Your task to perform on an android device: What's the weather like in Los Angeles? Image 0: 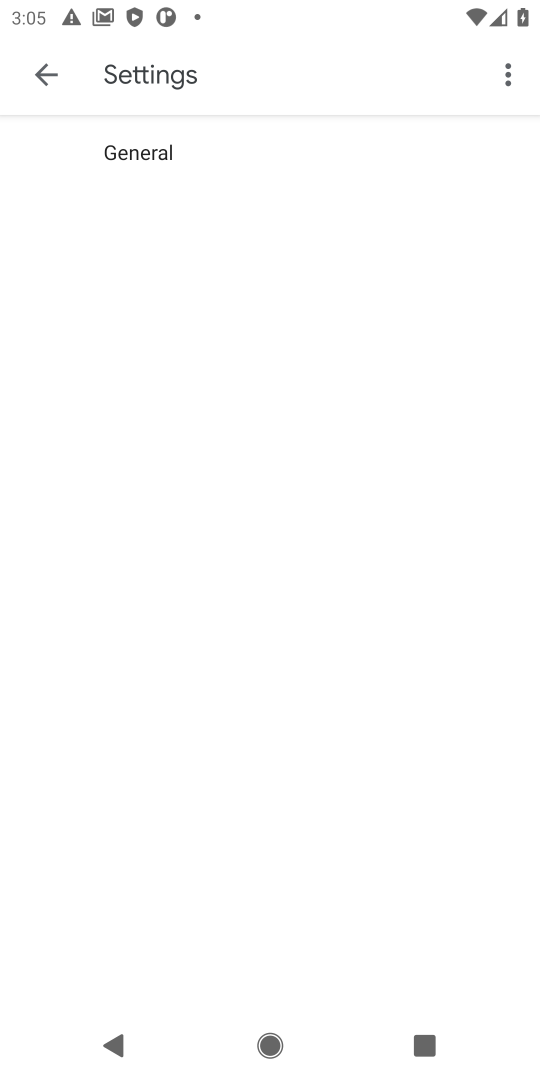
Step 0: press home button
Your task to perform on an android device: What's the weather like in Los Angeles? Image 1: 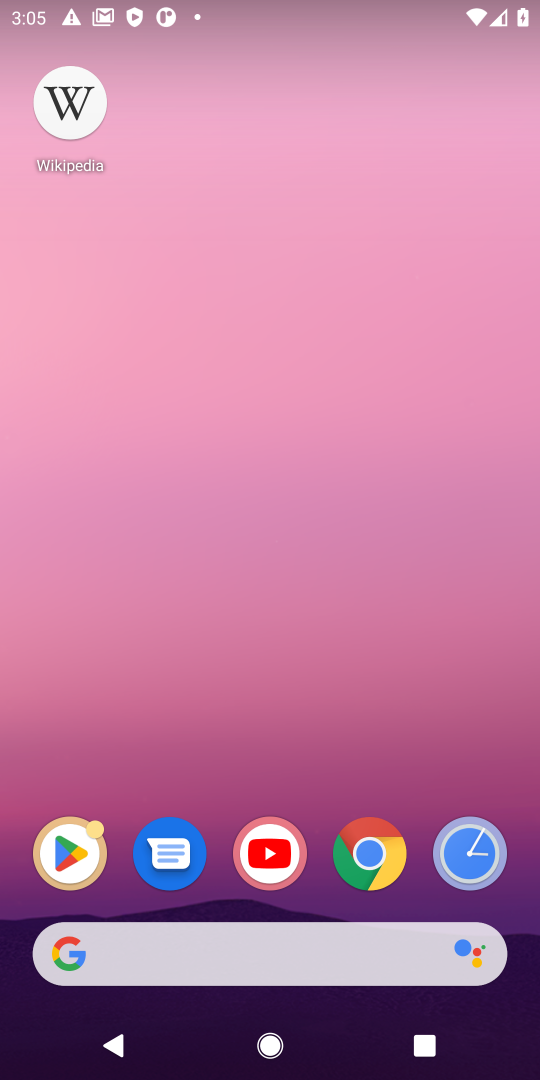
Step 1: click (359, 854)
Your task to perform on an android device: What's the weather like in Los Angeles? Image 2: 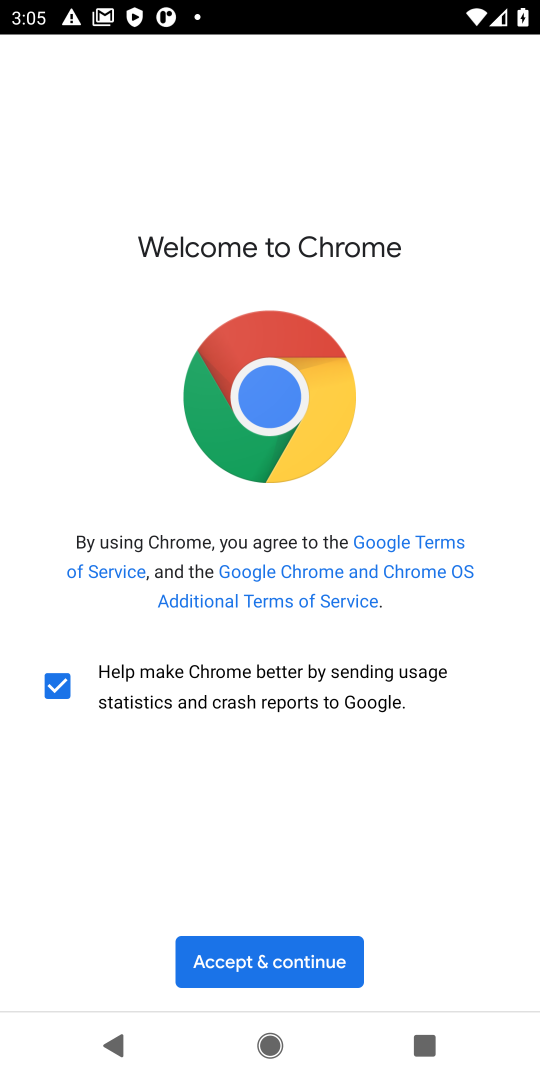
Step 2: click (269, 966)
Your task to perform on an android device: What's the weather like in Los Angeles? Image 3: 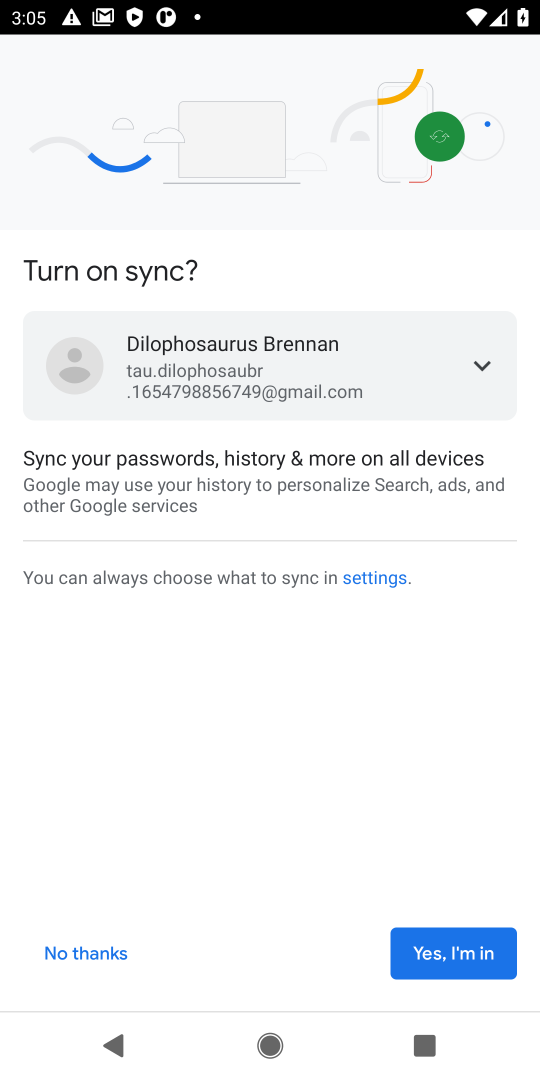
Step 3: click (465, 976)
Your task to perform on an android device: What's the weather like in Los Angeles? Image 4: 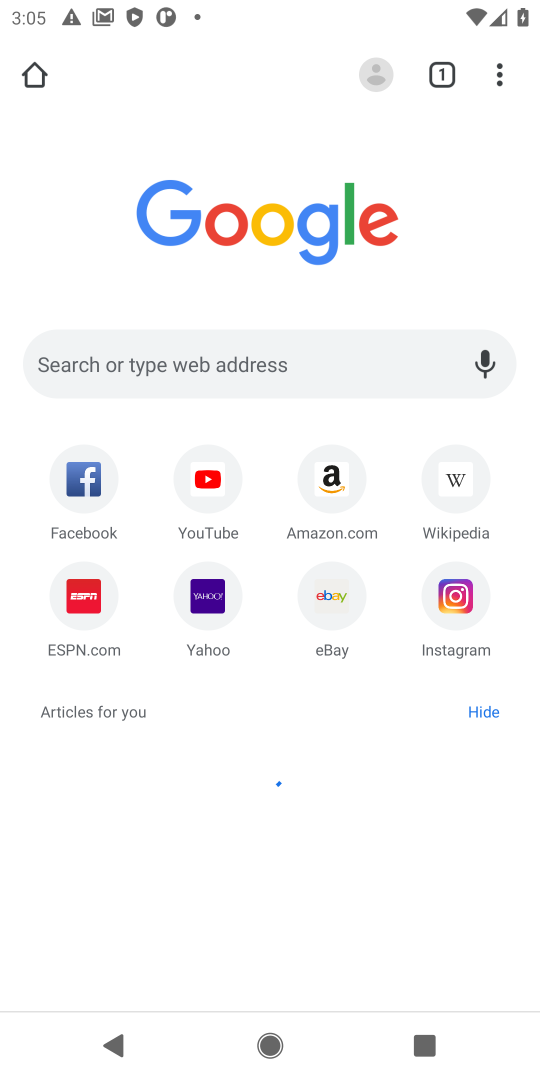
Step 4: click (289, 382)
Your task to perform on an android device: What's the weather like in Los Angeles? Image 5: 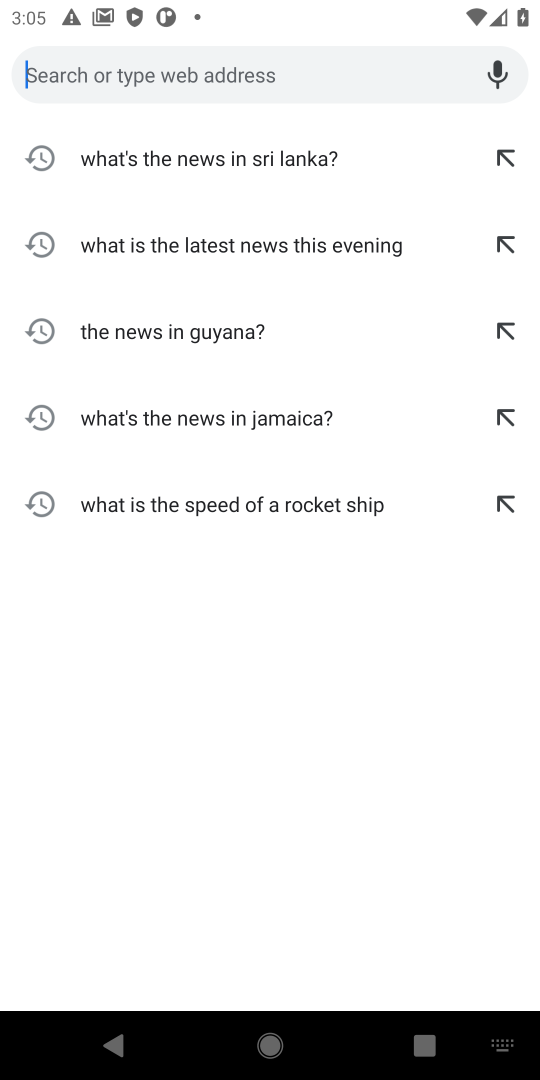
Step 5: click (536, 1079)
Your task to perform on an android device: What's the weather like in Los Angeles? Image 6: 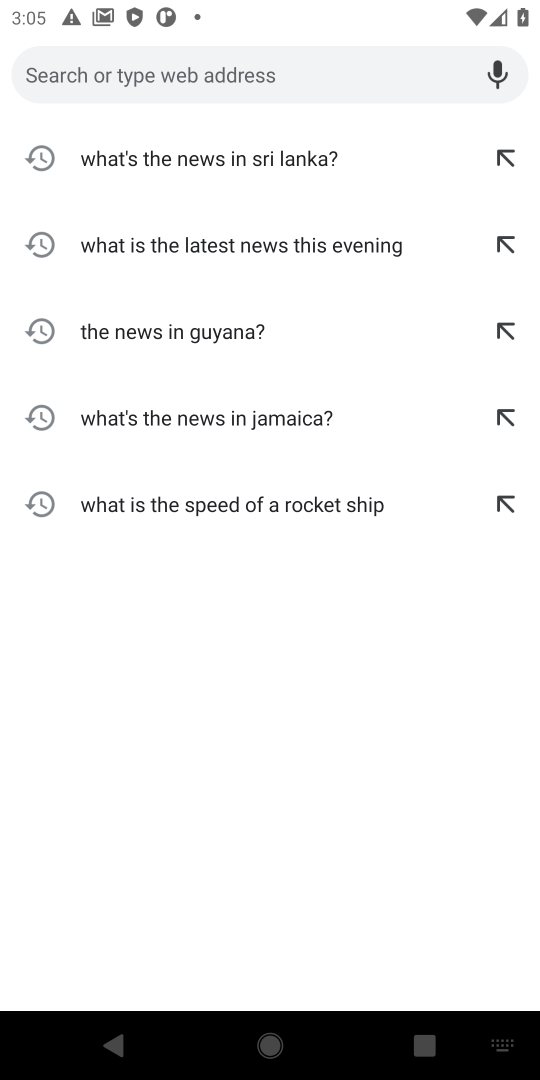
Step 6: type "What's the weather like in Los Angeles?"
Your task to perform on an android device: What's the weather like in Los Angeles? Image 7: 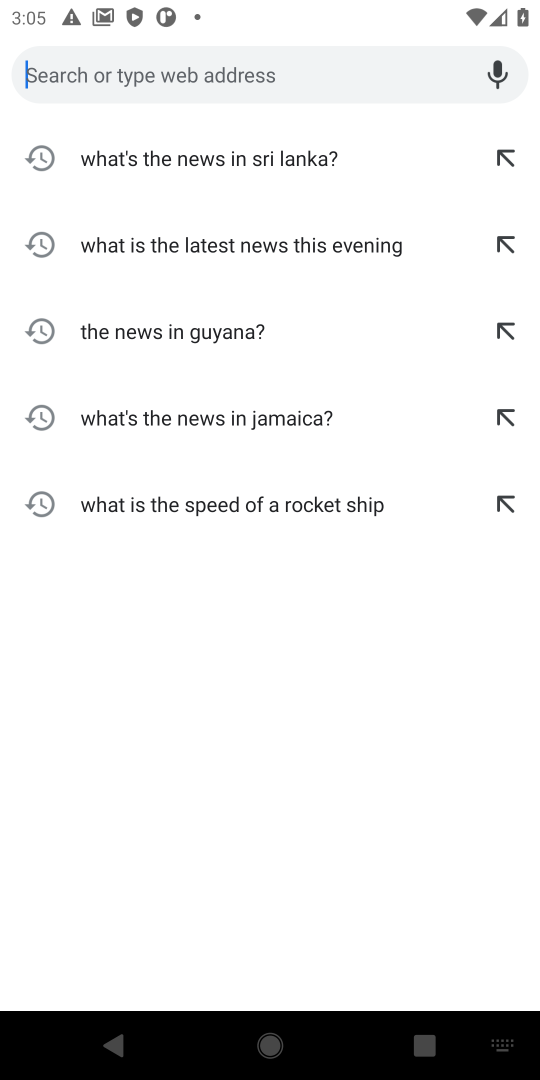
Step 7: click (393, 50)
Your task to perform on an android device: What's the weather like in Los Angeles? Image 8: 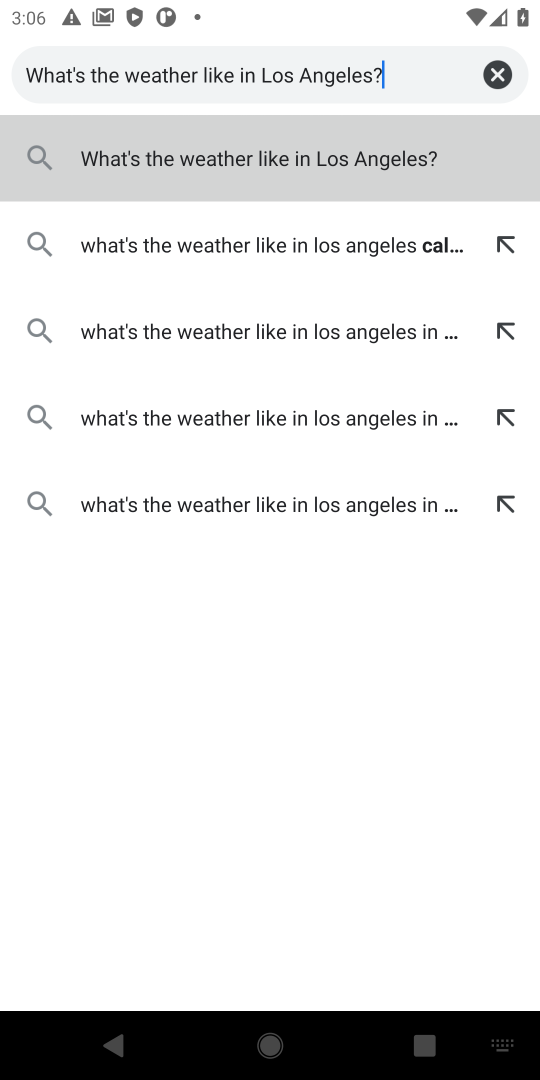
Step 8: click (245, 156)
Your task to perform on an android device: What's the weather like in Los Angeles? Image 9: 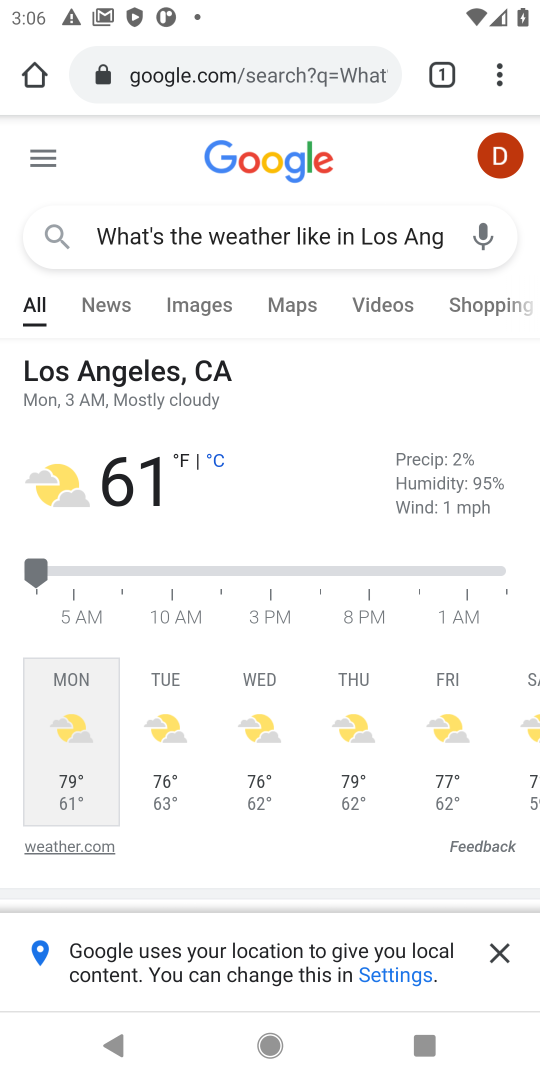
Step 9: task complete